Your task to perform on an android device: delete browsing data in the chrome app Image 0: 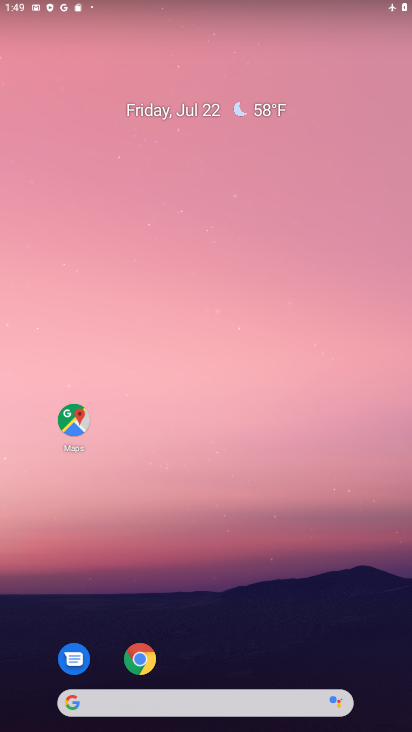
Step 0: press home button
Your task to perform on an android device: delete browsing data in the chrome app Image 1: 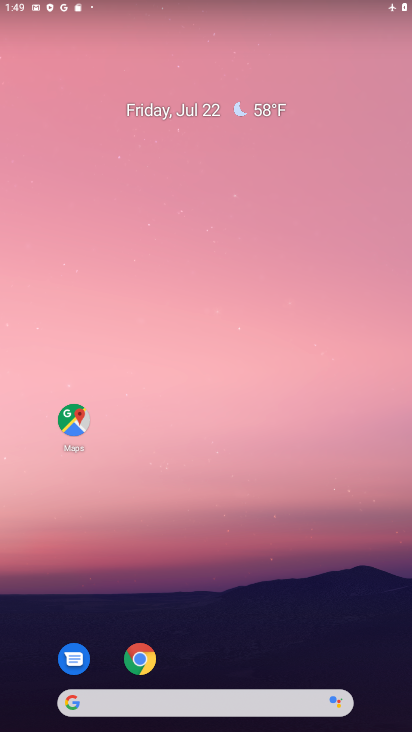
Step 1: drag from (236, 650) to (159, 110)
Your task to perform on an android device: delete browsing data in the chrome app Image 2: 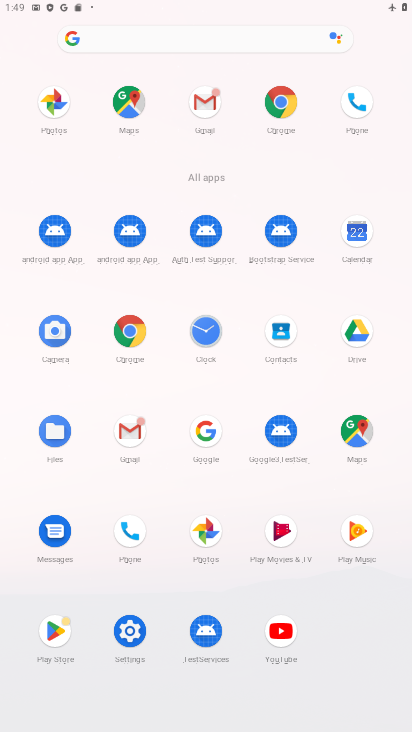
Step 2: click (285, 109)
Your task to perform on an android device: delete browsing data in the chrome app Image 3: 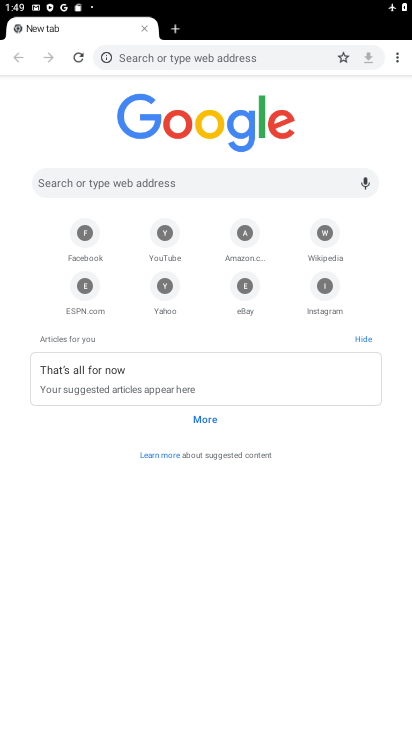
Step 3: drag from (394, 57) to (284, 263)
Your task to perform on an android device: delete browsing data in the chrome app Image 4: 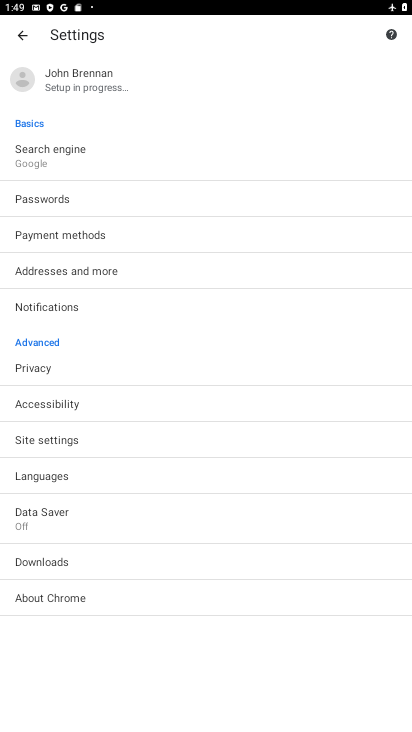
Step 4: click (53, 440)
Your task to perform on an android device: delete browsing data in the chrome app Image 5: 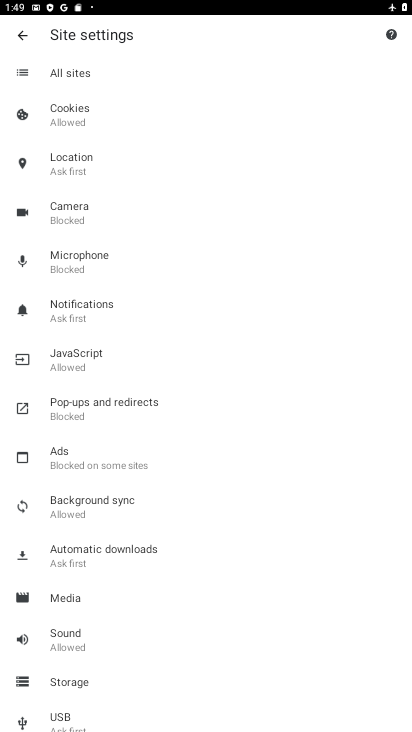
Step 5: click (23, 34)
Your task to perform on an android device: delete browsing data in the chrome app Image 6: 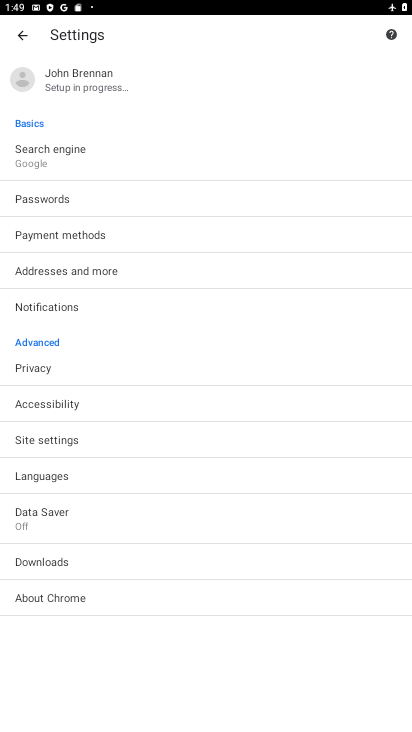
Step 6: click (36, 368)
Your task to perform on an android device: delete browsing data in the chrome app Image 7: 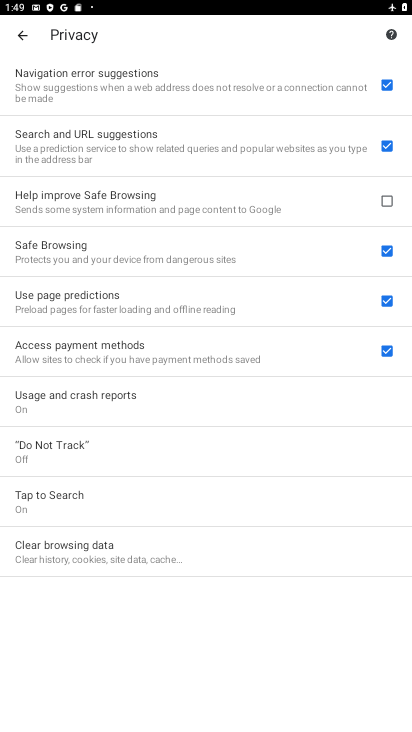
Step 7: click (114, 569)
Your task to perform on an android device: delete browsing data in the chrome app Image 8: 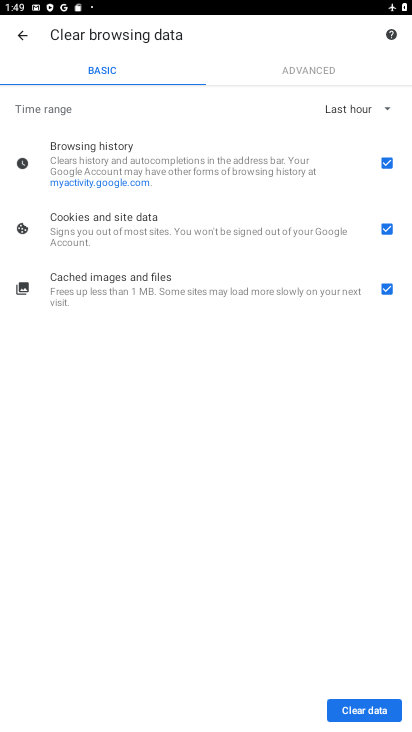
Step 8: click (366, 712)
Your task to perform on an android device: delete browsing data in the chrome app Image 9: 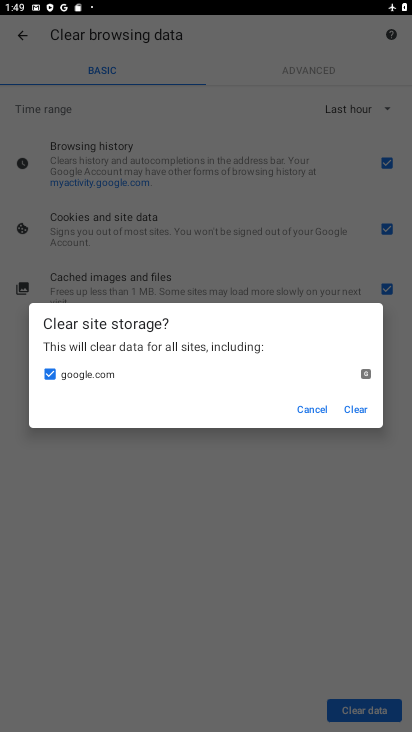
Step 9: click (358, 406)
Your task to perform on an android device: delete browsing data in the chrome app Image 10: 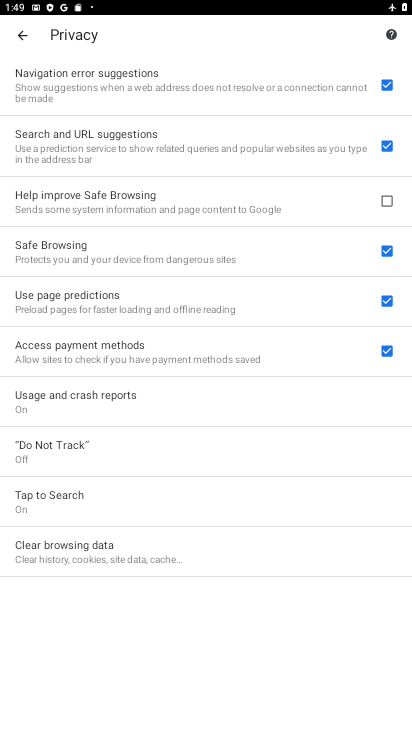
Step 10: task complete